Your task to perform on an android device: turn off data saver in the chrome app Image 0: 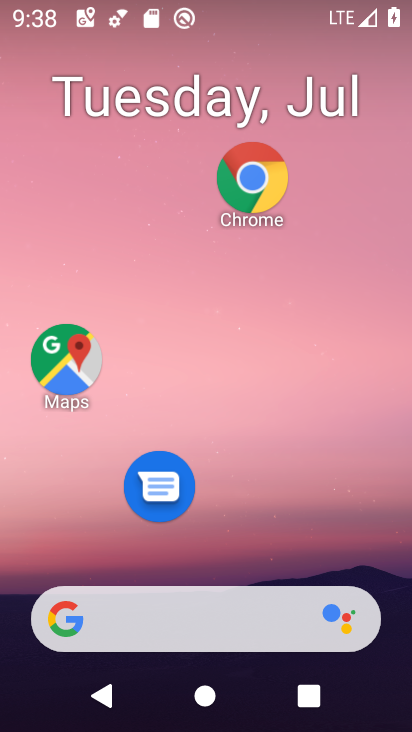
Step 0: drag from (245, 619) to (286, 162)
Your task to perform on an android device: turn off data saver in the chrome app Image 1: 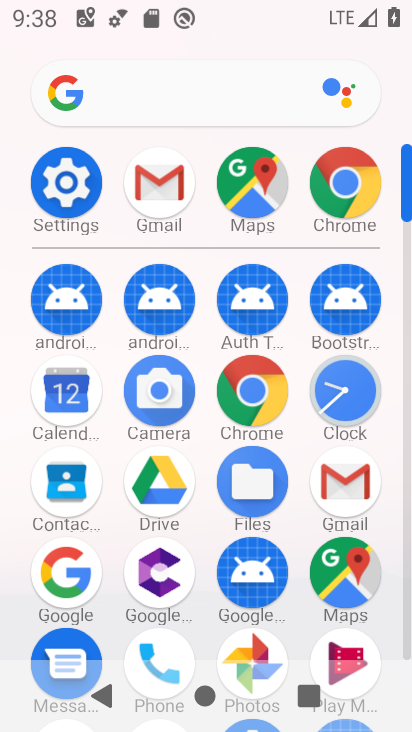
Step 1: click (324, 195)
Your task to perform on an android device: turn off data saver in the chrome app Image 2: 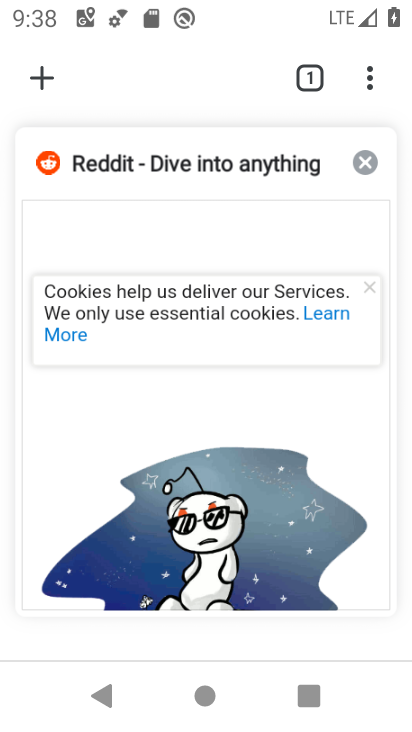
Step 2: click (371, 87)
Your task to perform on an android device: turn off data saver in the chrome app Image 3: 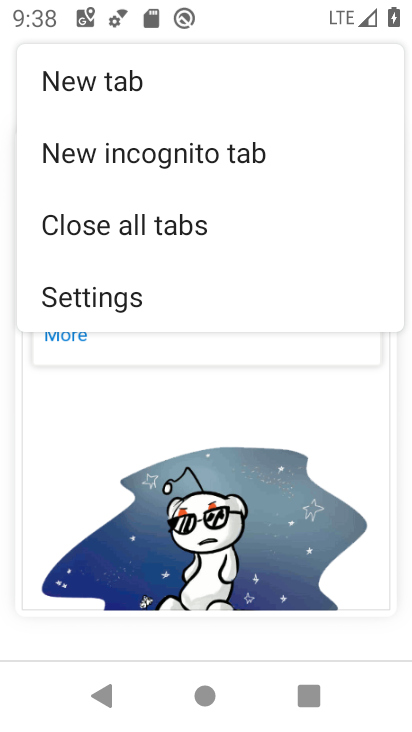
Step 3: click (159, 301)
Your task to perform on an android device: turn off data saver in the chrome app Image 4: 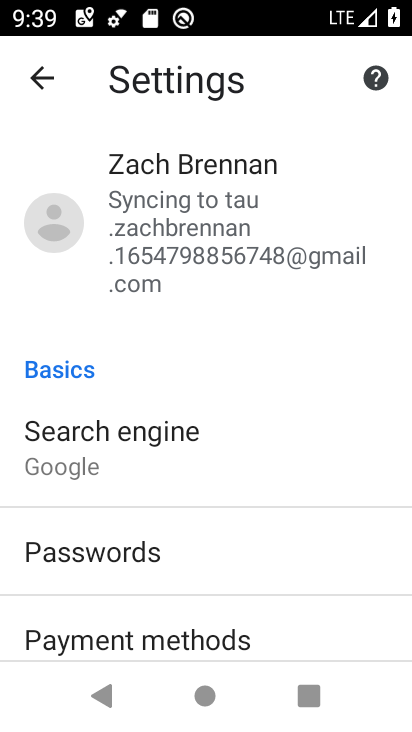
Step 4: drag from (147, 525) to (171, 117)
Your task to perform on an android device: turn off data saver in the chrome app Image 5: 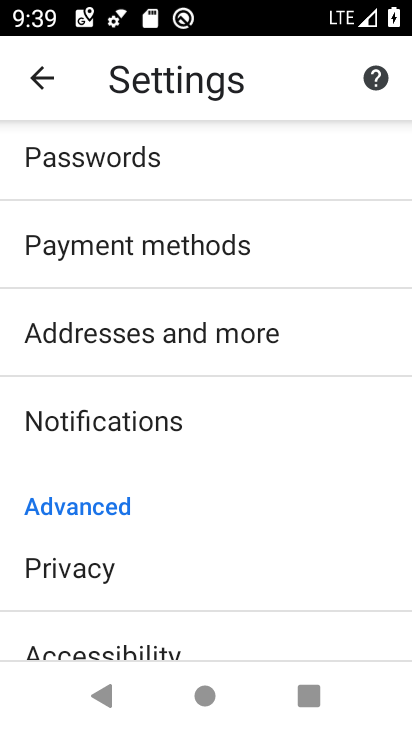
Step 5: drag from (135, 597) to (134, 174)
Your task to perform on an android device: turn off data saver in the chrome app Image 6: 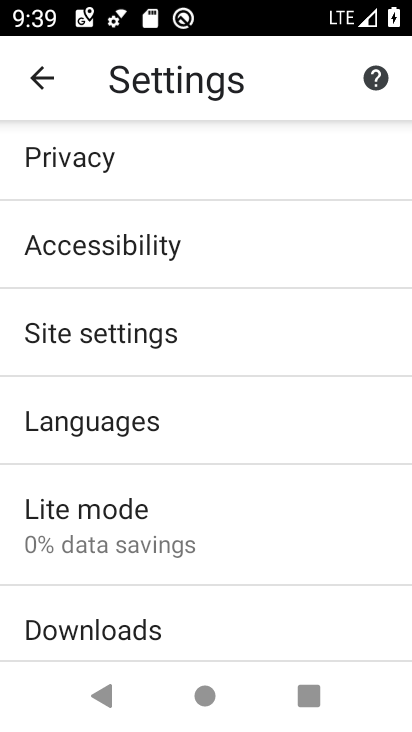
Step 6: click (137, 512)
Your task to perform on an android device: turn off data saver in the chrome app Image 7: 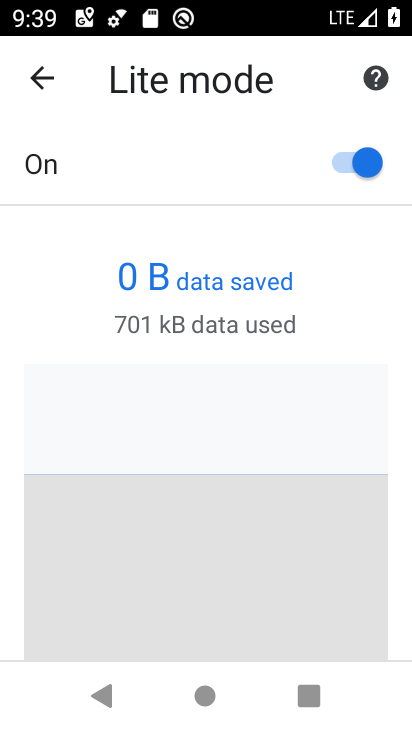
Step 7: click (339, 164)
Your task to perform on an android device: turn off data saver in the chrome app Image 8: 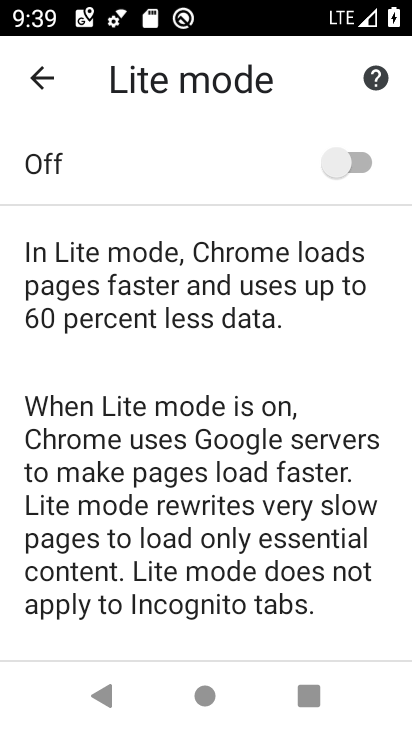
Step 8: task complete